Your task to perform on an android device: Go to internet settings Image 0: 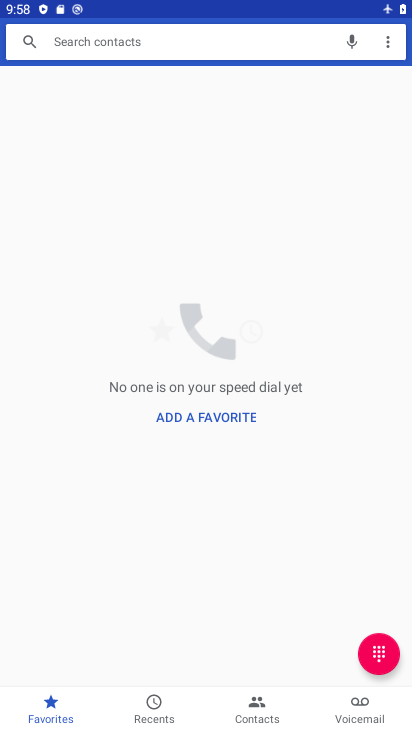
Step 0: press home button
Your task to perform on an android device: Go to internet settings Image 1: 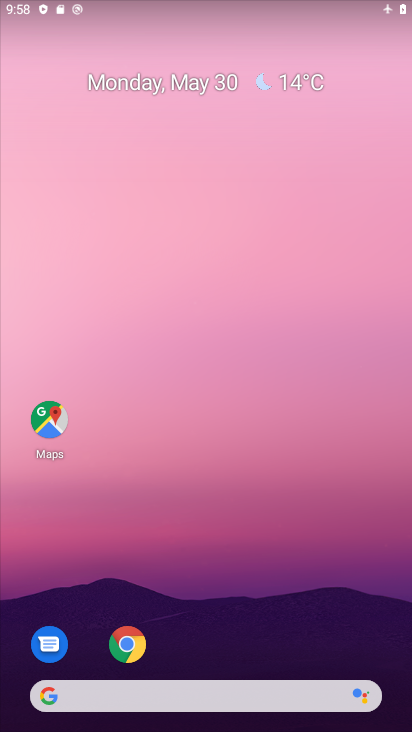
Step 1: drag from (216, 654) to (345, 78)
Your task to perform on an android device: Go to internet settings Image 2: 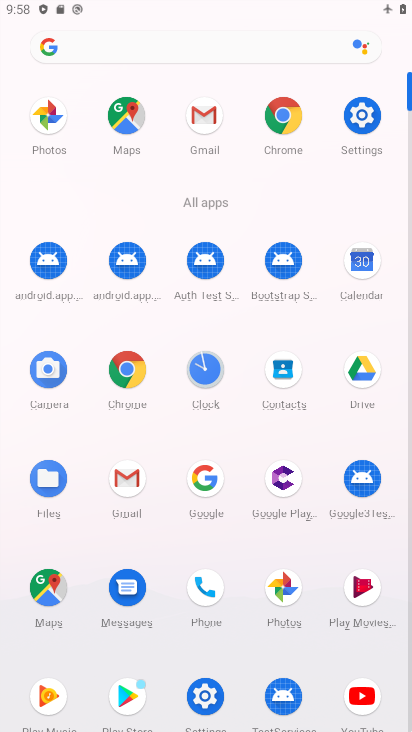
Step 2: click (363, 110)
Your task to perform on an android device: Go to internet settings Image 3: 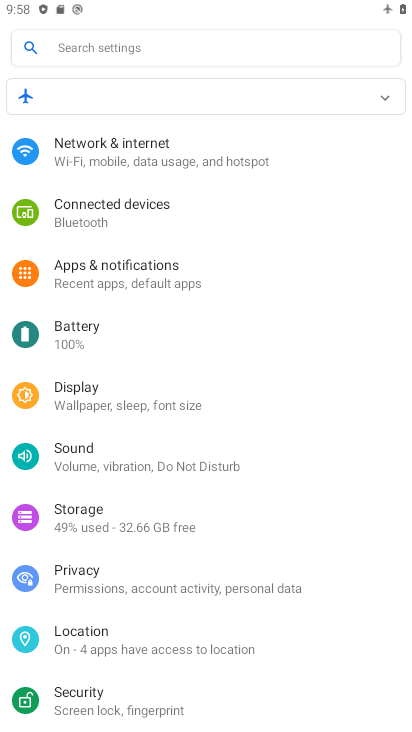
Step 3: click (233, 166)
Your task to perform on an android device: Go to internet settings Image 4: 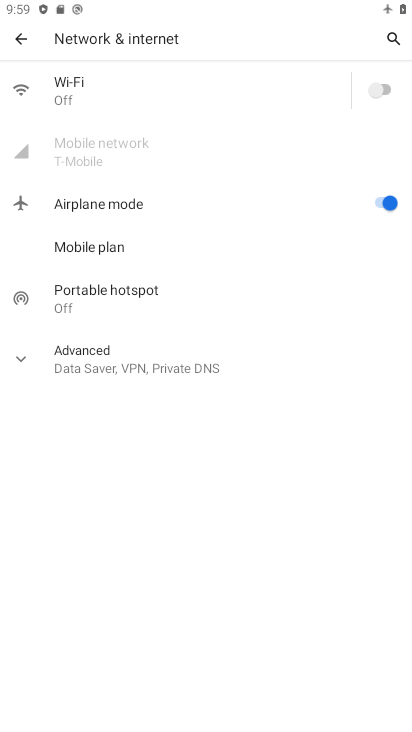
Step 4: task complete